Your task to perform on an android device: Open Chrome and go to the settings page Image 0: 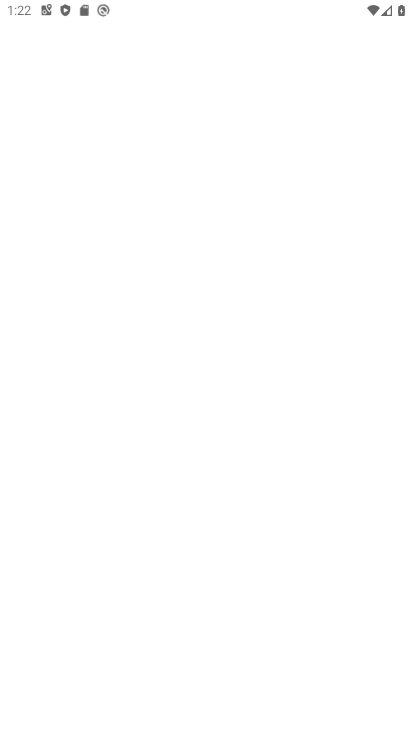
Step 0: press home button
Your task to perform on an android device: Open Chrome and go to the settings page Image 1: 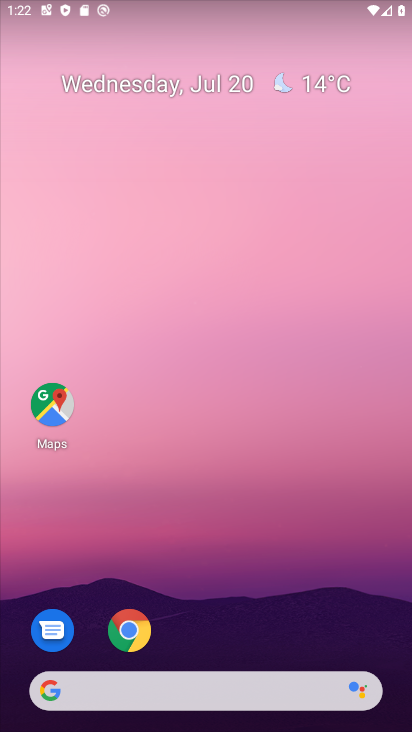
Step 1: click (119, 622)
Your task to perform on an android device: Open Chrome and go to the settings page Image 2: 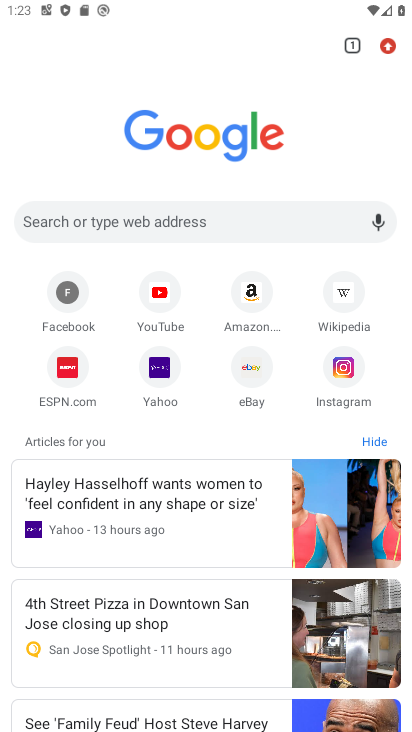
Step 2: click (389, 48)
Your task to perform on an android device: Open Chrome and go to the settings page Image 3: 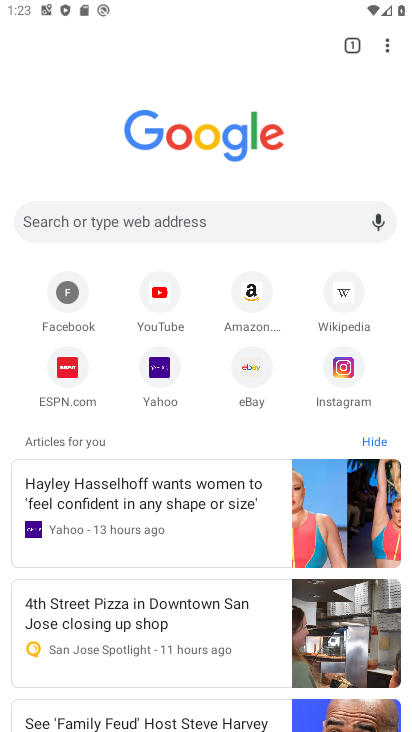
Step 3: click (390, 45)
Your task to perform on an android device: Open Chrome and go to the settings page Image 4: 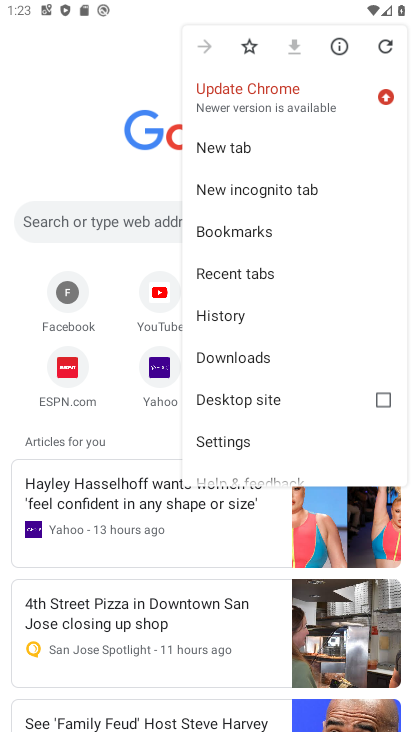
Step 4: click (226, 441)
Your task to perform on an android device: Open Chrome and go to the settings page Image 5: 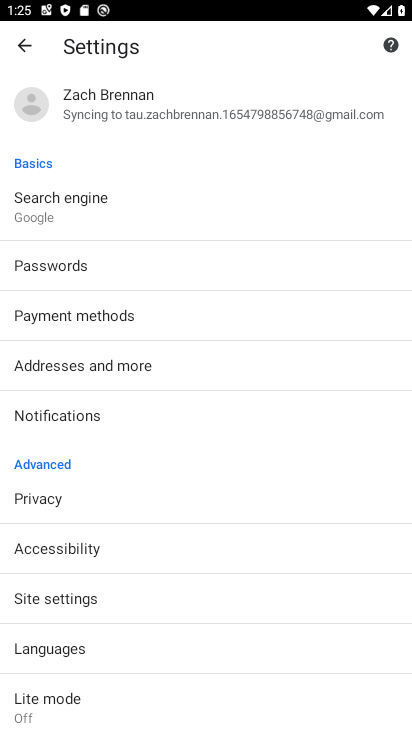
Step 5: task complete